Your task to perform on an android device: set an alarm Image 0: 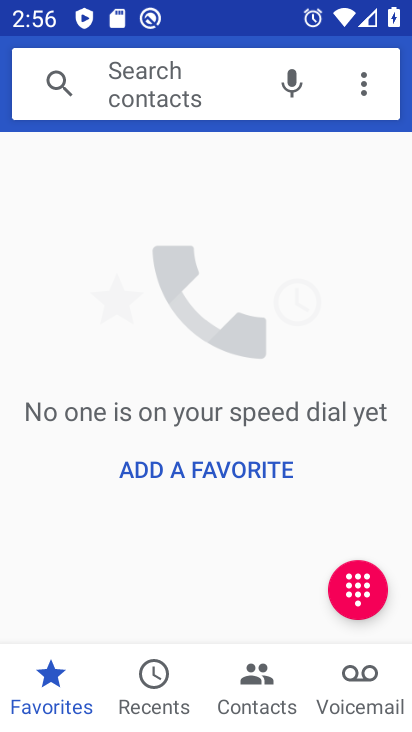
Step 0: press home button
Your task to perform on an android device: set an alarm Image 1: 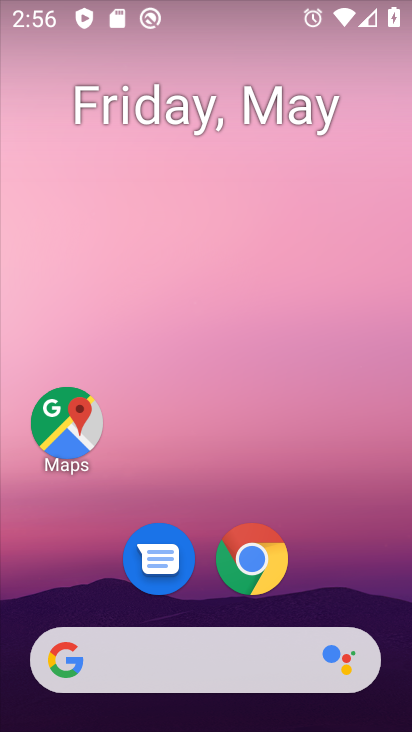
Step 1: drag from (365, 581) to (279, 38)
Your task to perform on an android device: set an alarm Image 2: 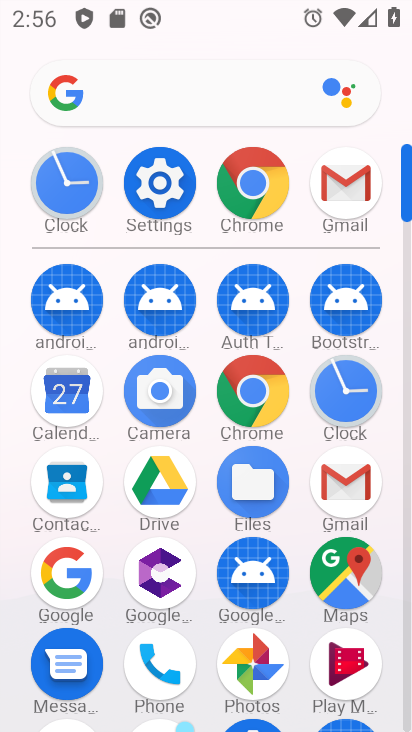
Step 2: click (44, 165)
Your task to perform on an android device: set an alarm Image 3: 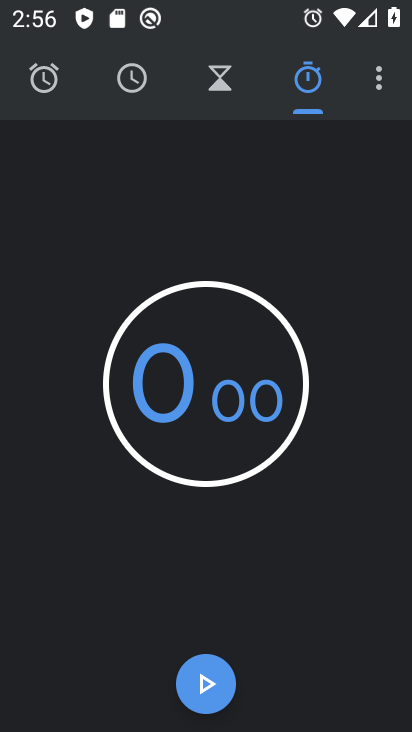
Step 3: click (30, 66)
Your task to perform on an android device: set an alarm Image 4: 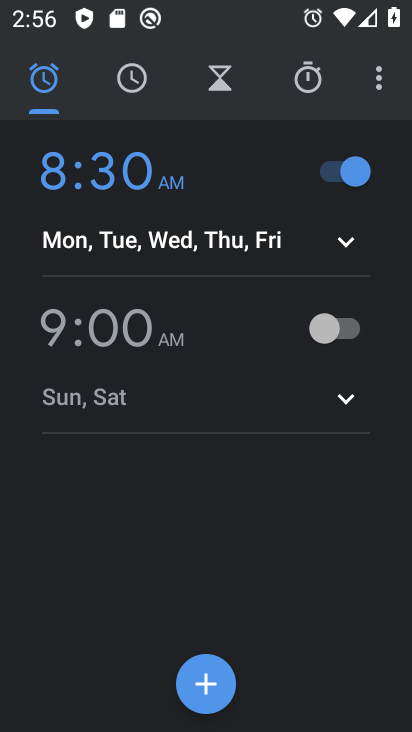
Step 4: task complete